Your task to perform on an android device: Open Amazon Image 0: 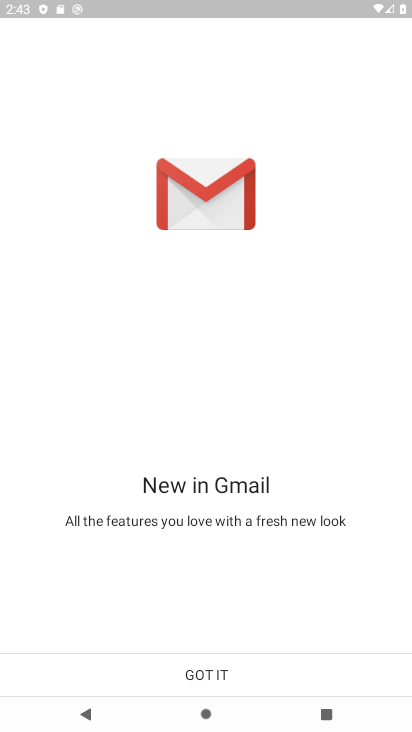
Step 0: press home button
Your task to perform on an android device: Open Amazon Image 1: 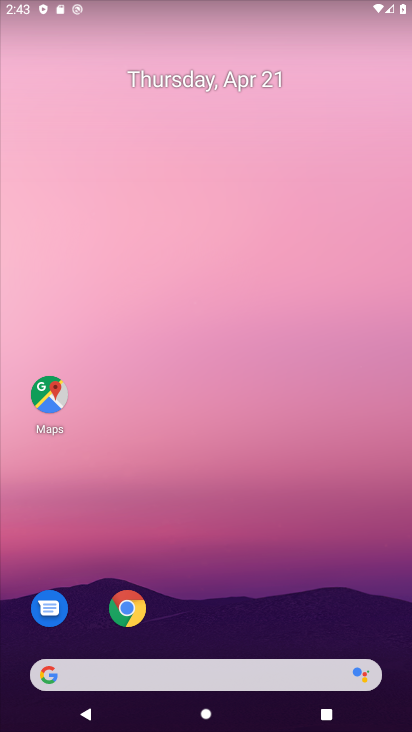
Step 1: click (133, 610)
Your task to perform on an android device: Open Amazon Image 2: 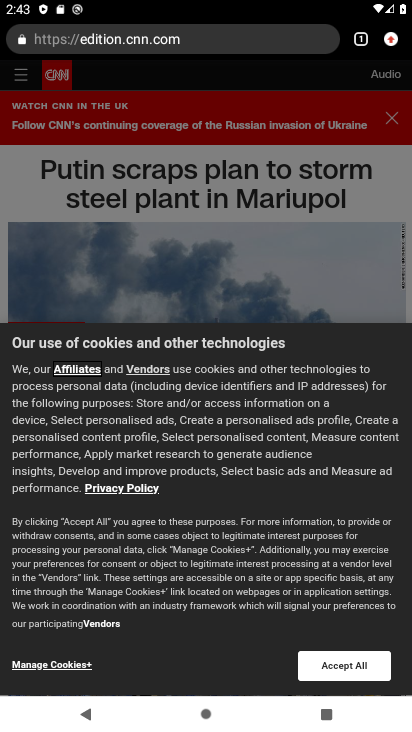
Step 2: click (269, 33)
Your task to perform on an android device: Open Amazon Image 3: 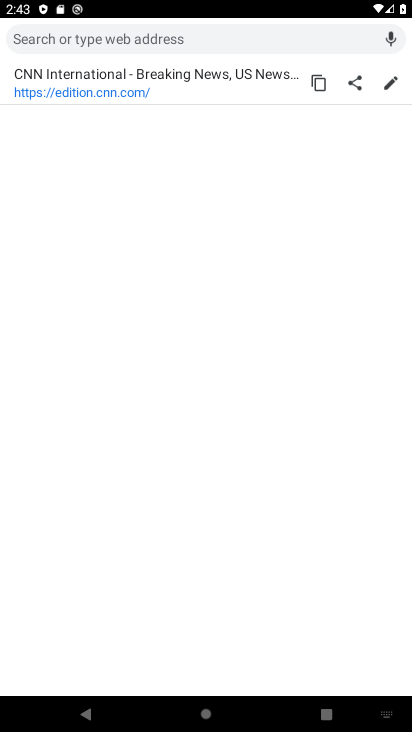
Step 3: type "amazon"
Your task to perform on an android device: Open Amazon Image 4: 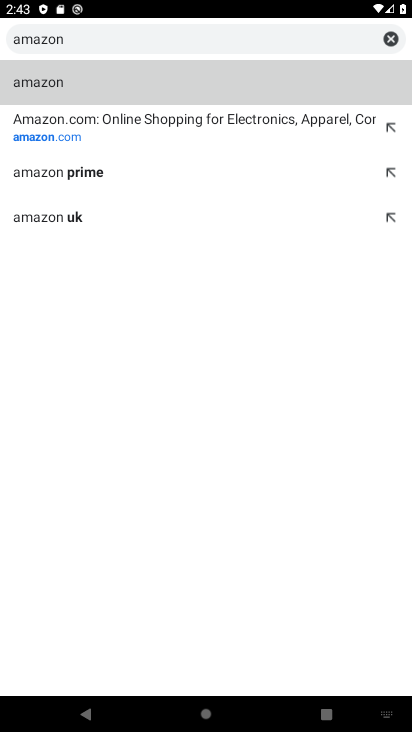
Step 4: click (51, 72)
Your task to perform on an android device: Open Amazon Image 5: 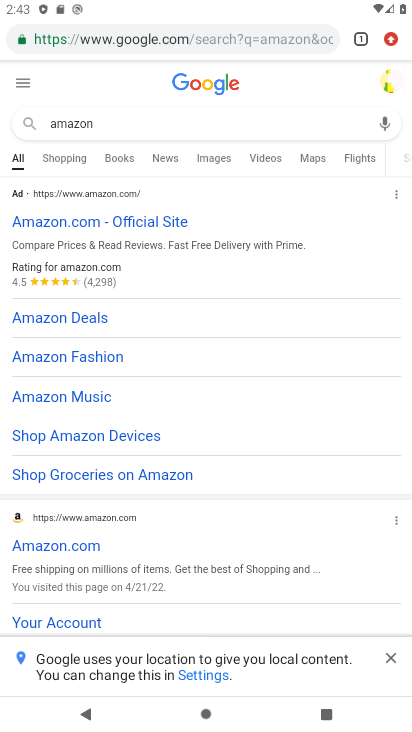
Step 5: click (59, 224)
Your task to perform on an android device: Open Amazon Image 6: 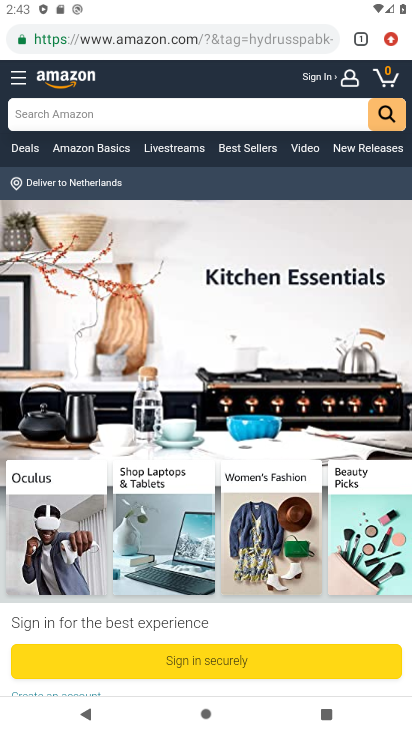
Step 6: task complete